Your task to perform on an android device: Search for sushi restaurants on Maps Image 0: 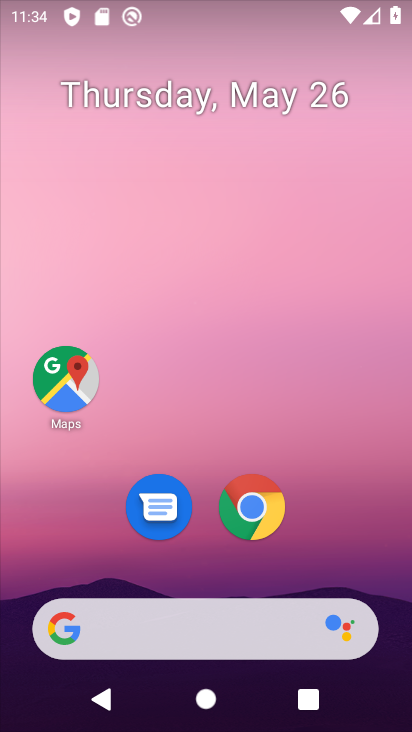
Step 0: click (69, 384)
Your task to perform on an android device: Search for sushi restaurants on Maps Image 1: 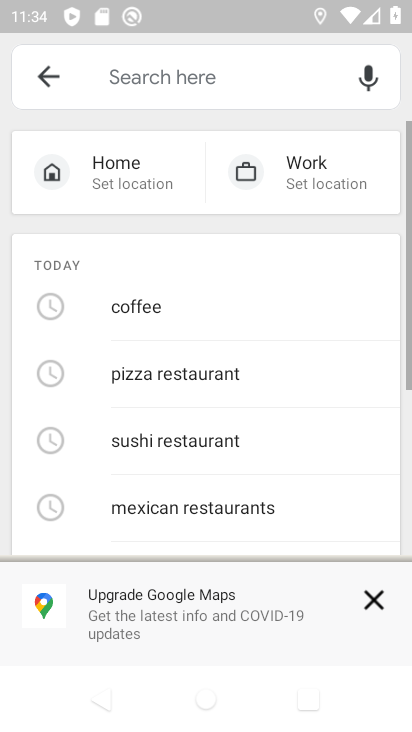
Step 1: click (191, 75)
Your task to perform on an android device: Search for sushi restaurants on Maps Image 2: 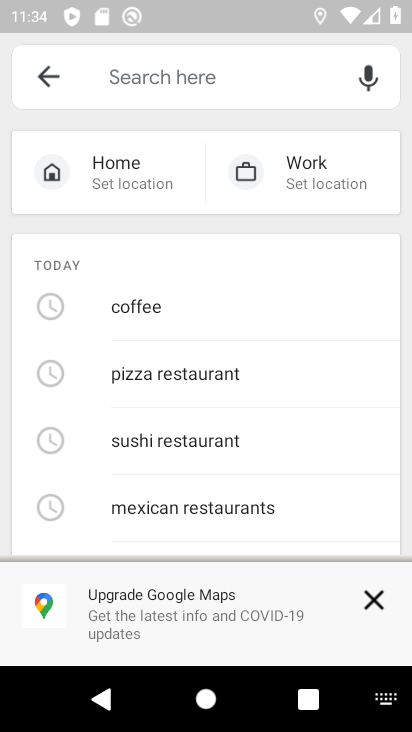
Step 2: type "sushi restaurants"
Your task to perform on an android device: Search for sushi restaurants on Maps Image 3: 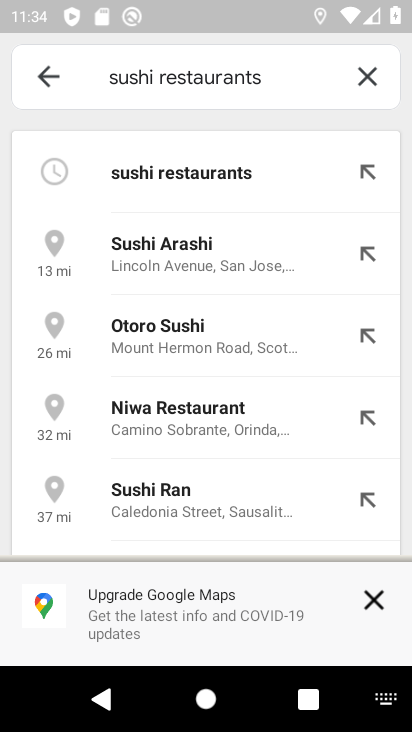
Step 3: click (209, 171)
Your task to perform on an android device: Search for sushi restaurants on Maps Image 4: 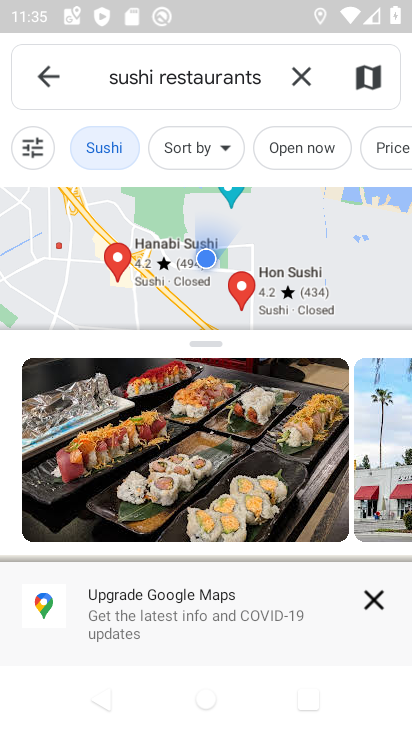
Step 4: task complete